Your task to perform on an android device: turn pop-ups off in chrome Image 0: 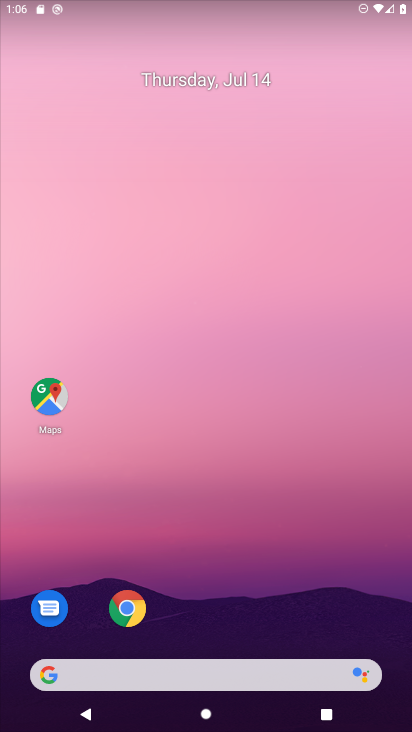
Step 0: drag from (247, 673) to (247, 120)
Your task to perform on an android device: turn pop-ups off in chrome Image 1: 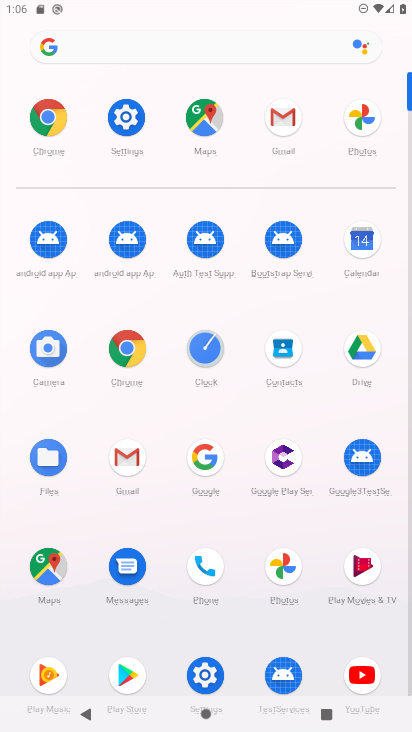
Step 1: click (47, 118)
Your task to perform on an android device: turn pop-ups off in chrome Image 2: 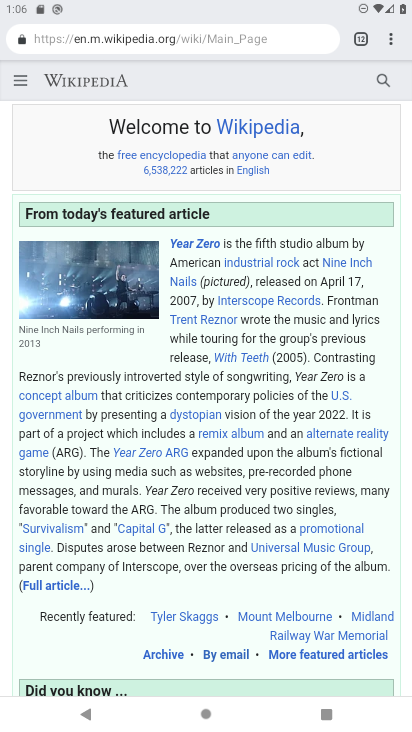
Step 2: click (392, 45)
Your task to perform on an android device: turn pop-ups off in chrome Image 3: 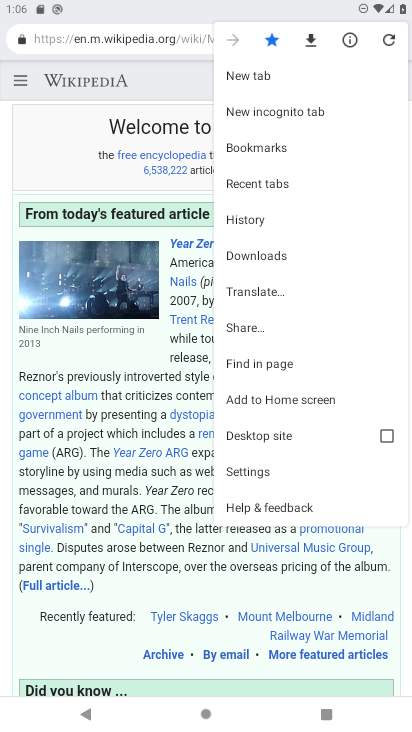
Step 3: click (249, 473)
Your task to perform on an android device: turn pop-ups off in chrome Image 4: 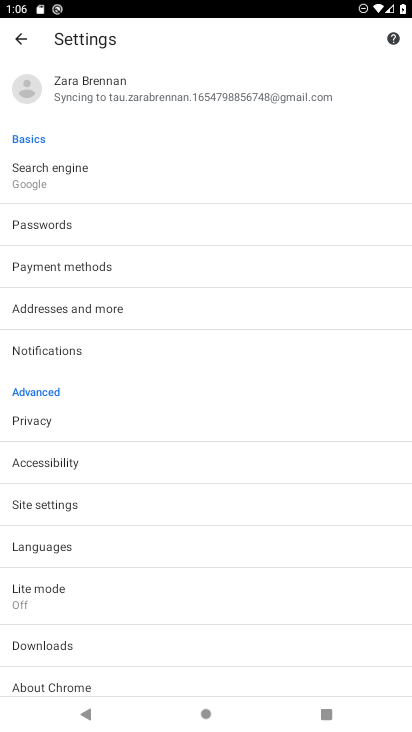
Step 4: click (47, 506)
Your task to perform on an android device: turn pop-ups off in chrome Image 5: 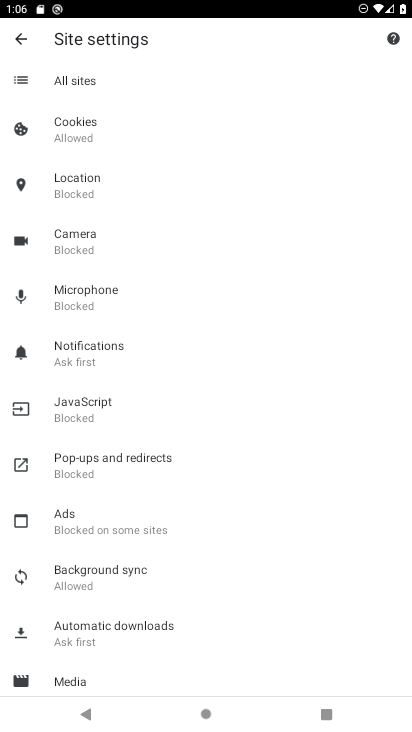
Step 5: click (76, 459)
Your task to perform on an android device: turn pop-ups off in chrome Image 6: 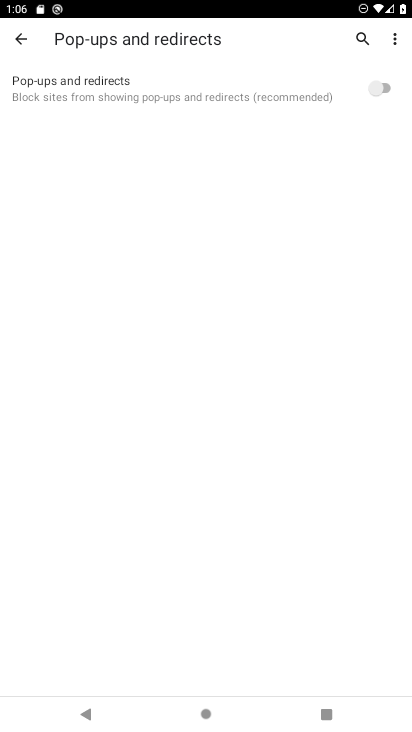
Step 6: task complete